Your task to perform on an android device: change the clock display to show seconds Image 0: 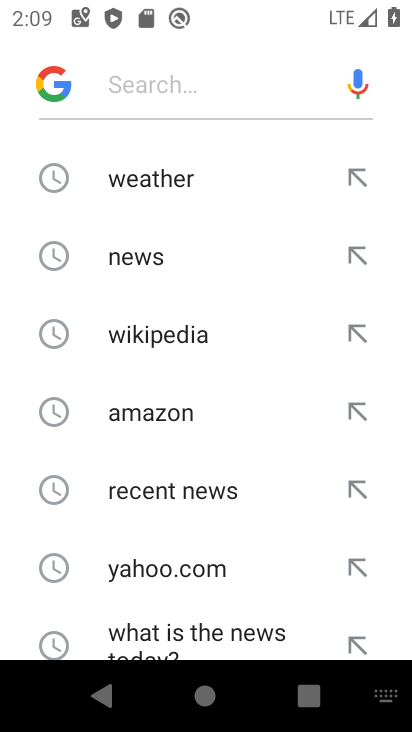
Step 0: press home button
Your task to perform on an android device: change the clock display to show seconds Image 1: 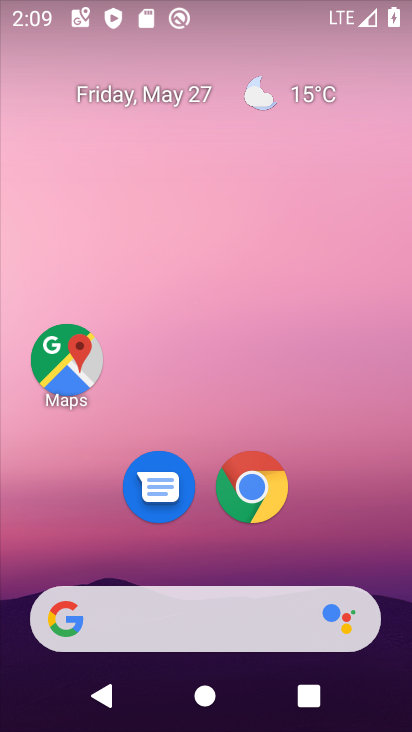
Step 1: drag from (359, 404) to (283, 111)
Your task to perform on an android device: change the clock display to show seconds Image 2: 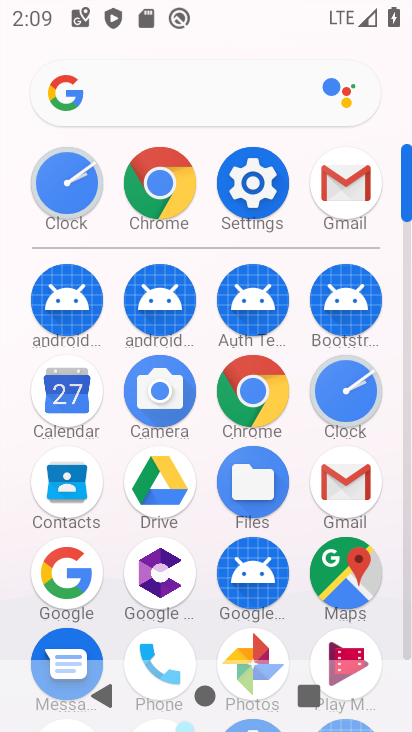
Step 2: click (241, 172)
Your task to perform on an android device: change the clock display to show seconds Image 3: 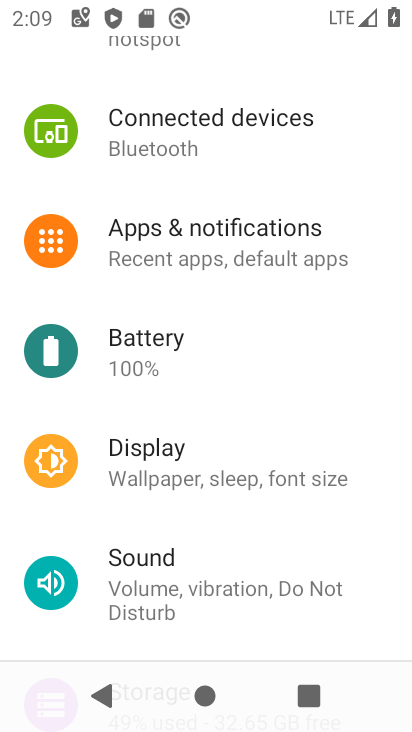
Step 3: press home button
Your task to perform on an android device: change the clock display to show seconds Image 4: 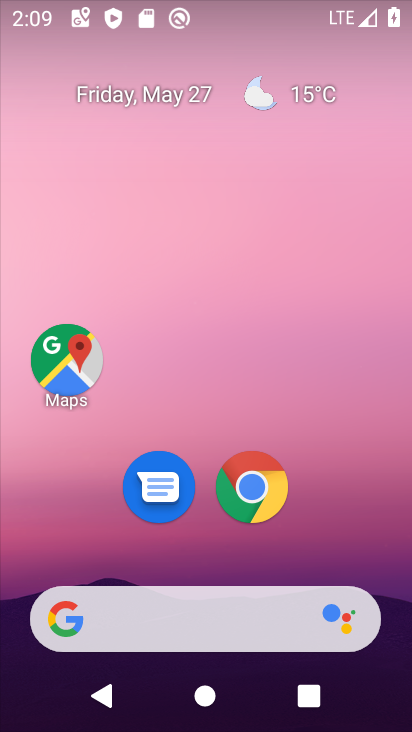
Step 4: drag from (350, 501) to (349, 226)
Your task to perform on an android device: change the clock display to show seconds Image 5: 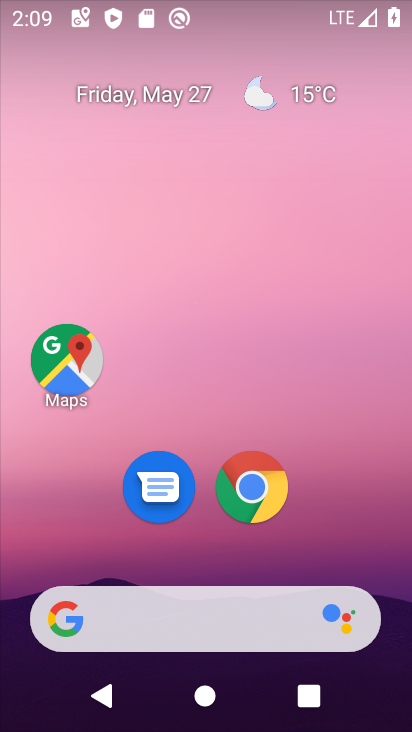
Step 5: drag from (368, 488) to (345, 178)
Your task to perform on an android device: change the clock display to show seconds Image 6: 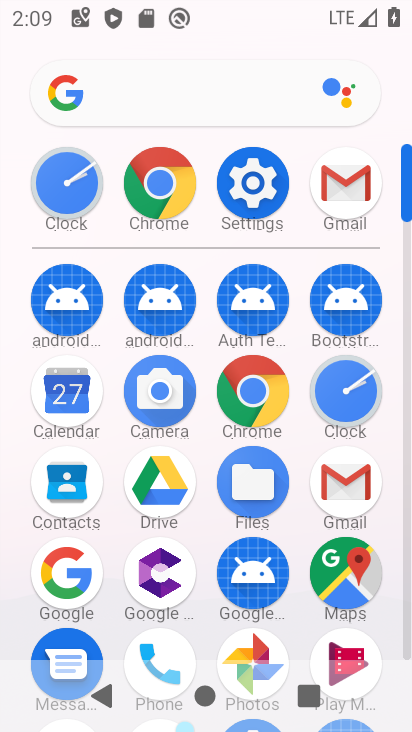
Step 6: click (360, 396)
Your task to perform on an android device: change the clock display to show seconds Image 7: 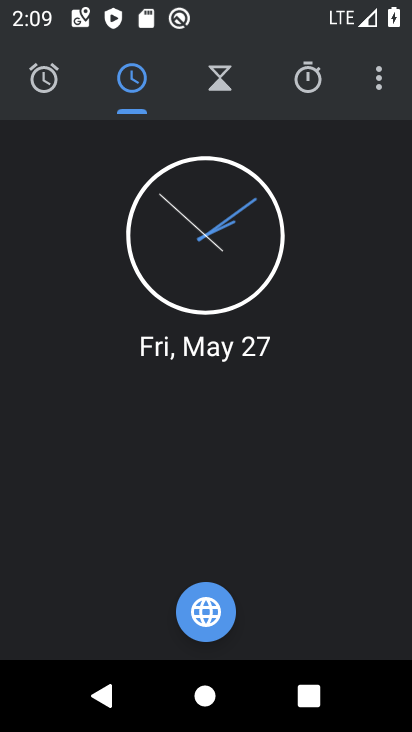
Step 7: click (375, 75)
Your task to perform on an android device: change the clock display to show seconds Image 8: 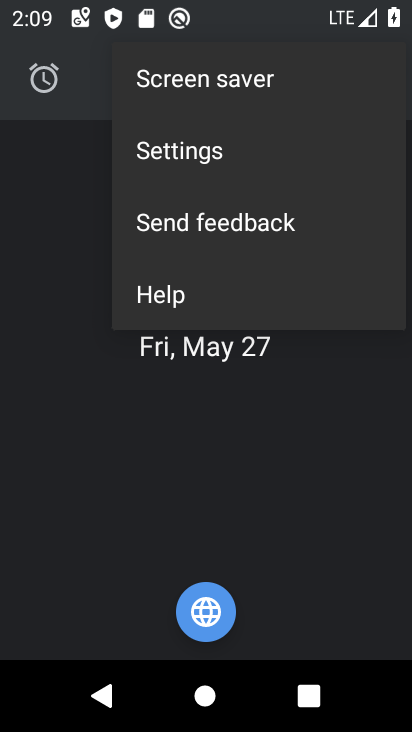
Step 8: click (202, 162)
Your task to perform on an android device: change the clock display to show seconds Image 9: 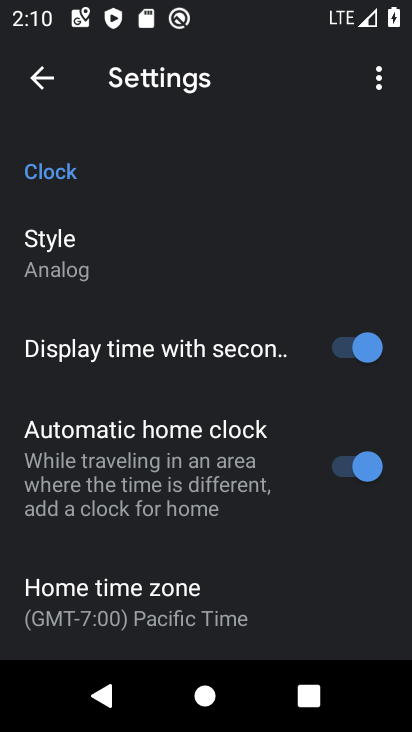
Step 9: task complete